Your task to perform on an android device: Go to network settings Image 0: 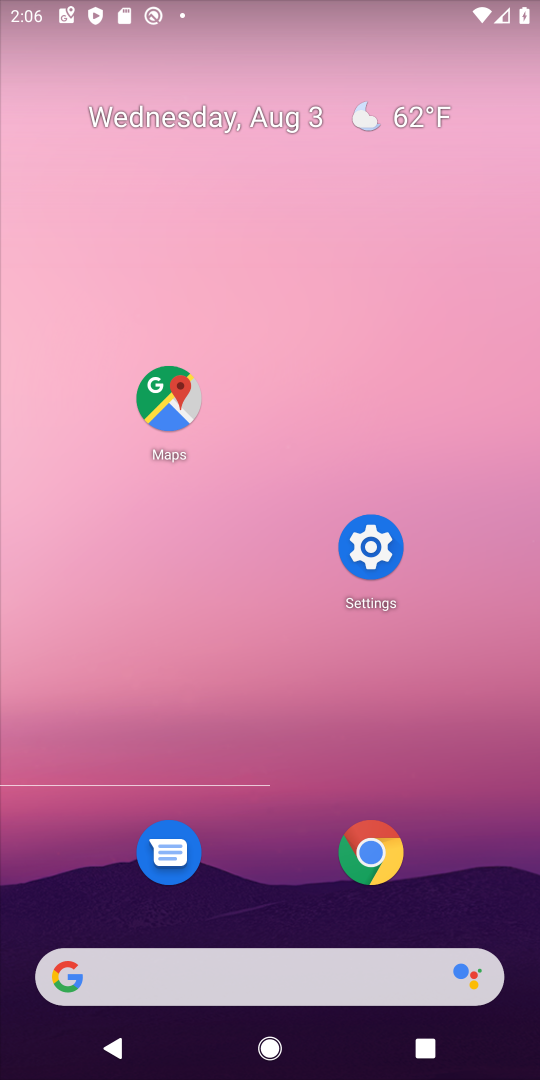
Step 0: press home button
Your task to perform on an android device: Go to network settings Image 1: 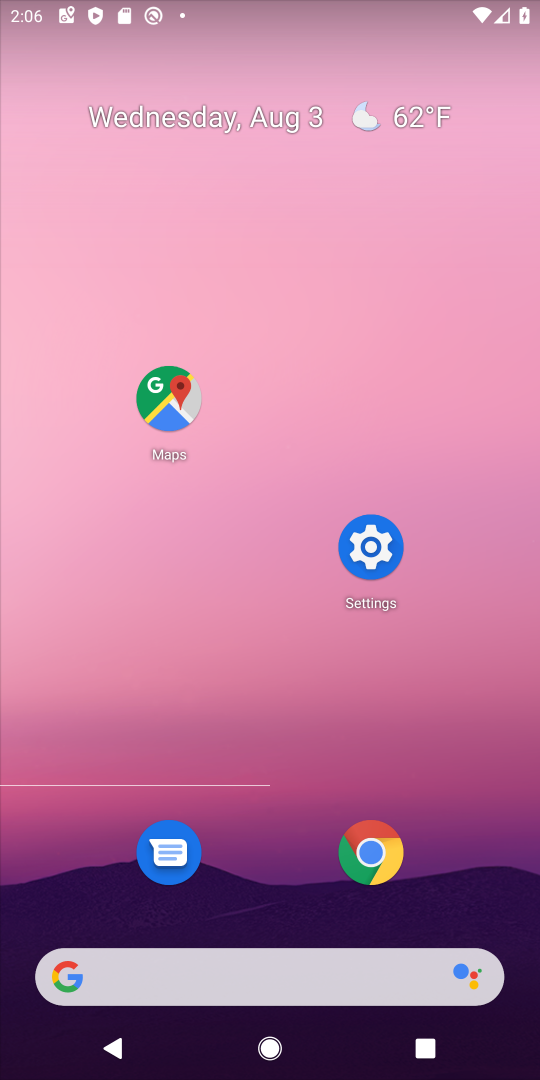
Step 1: click (377, 558)
Your task to perform on an android device: Go to network settings Image 2: 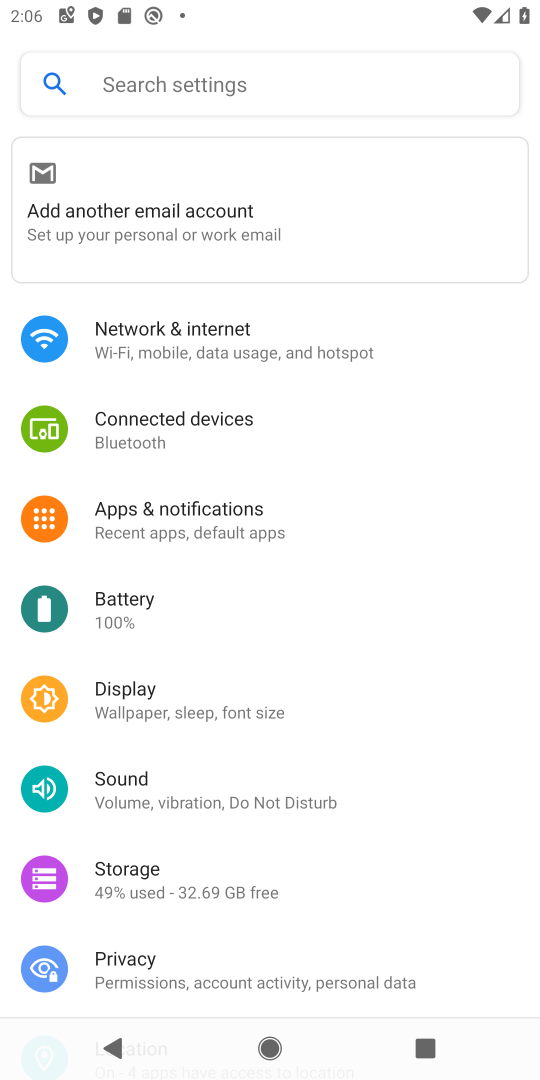
Step 2: click (208, 336)
Your task to perform on an android device: Go to network settings Image 3: 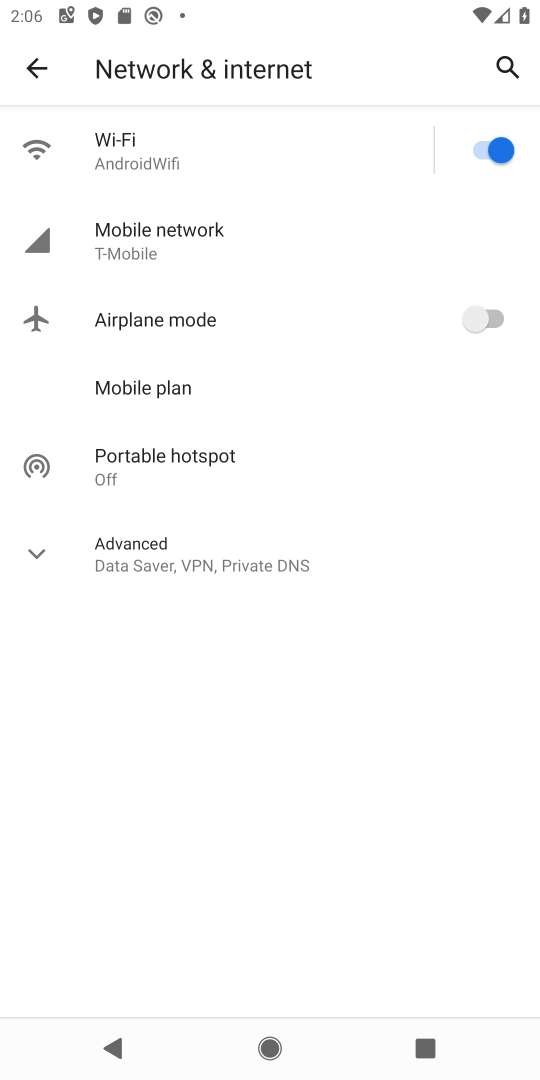
Step 3: click (177, 238)
Your task to perform on an android device: Go to network settings Image 4: 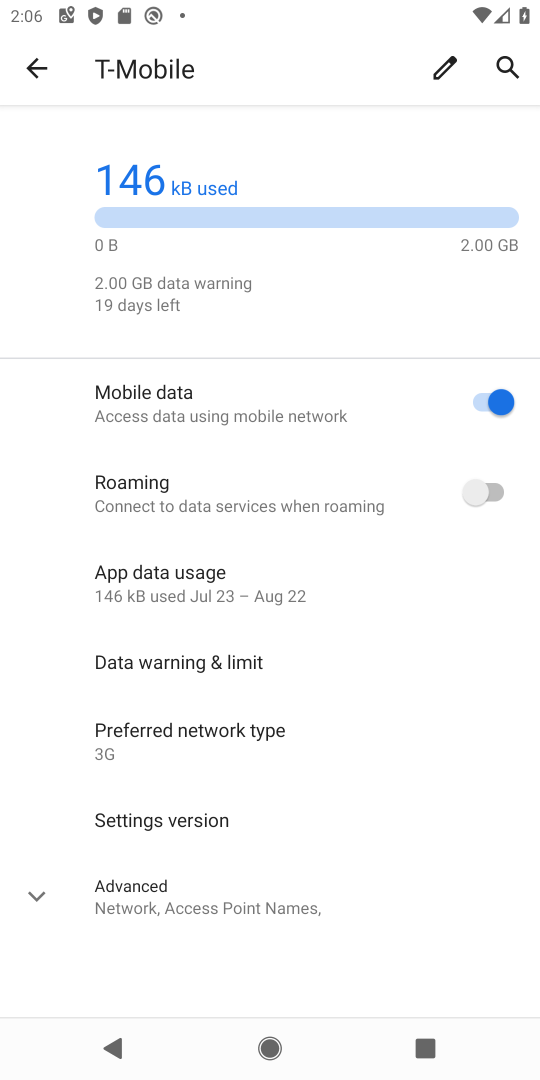
Step 4: task complete